Your task to perform on an android device: When is my next meeting? Image 0: 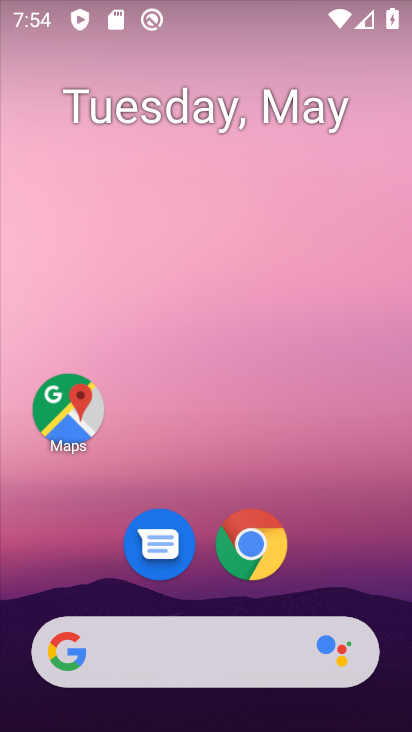
Step 0: drag from (353, 562) to (356, 4)
Your task to perform on an android device: When is my next meeting? Image 1: 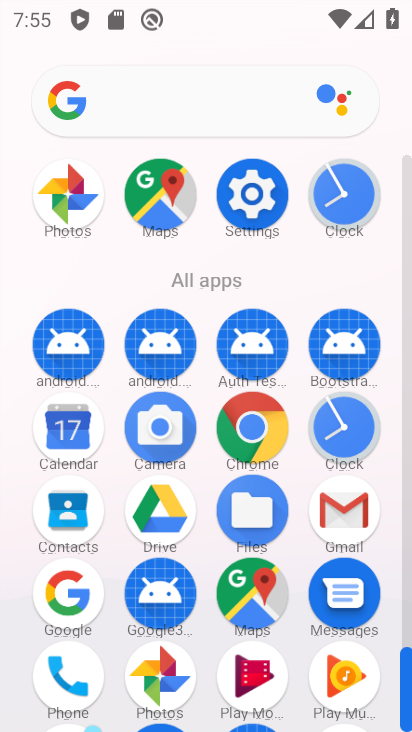
Step 1: click (73, 431)
Your task to perform on an android device: When is my next meeting? Image 2: 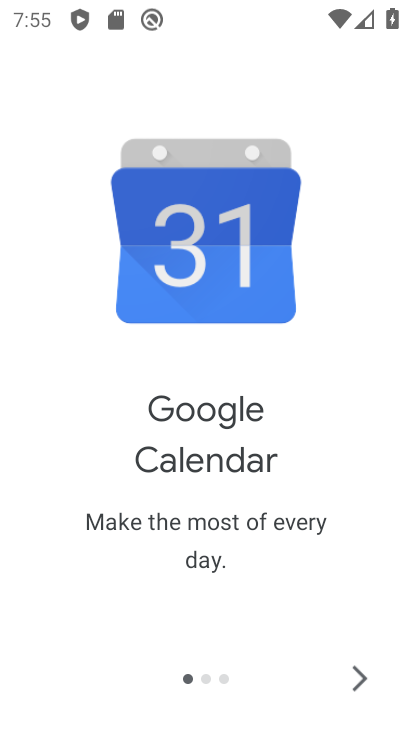
Step 2: click (363, 679)
Your task to perform on an android device: When is my next meeting? Image 3: 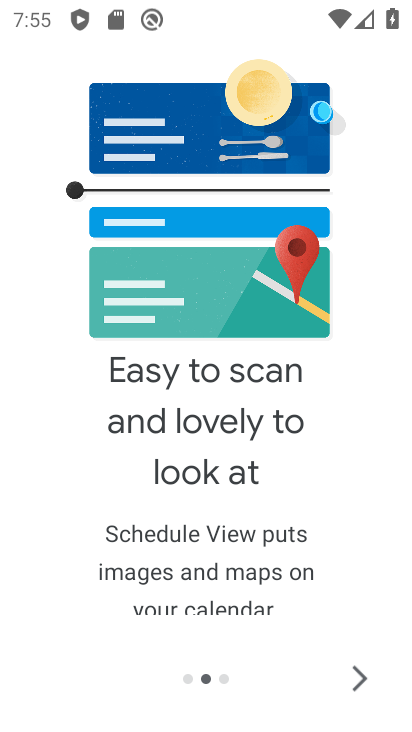
Step 3: click (363, 679)
Your task to perform on an android device: When is my next meeting? Image 4: 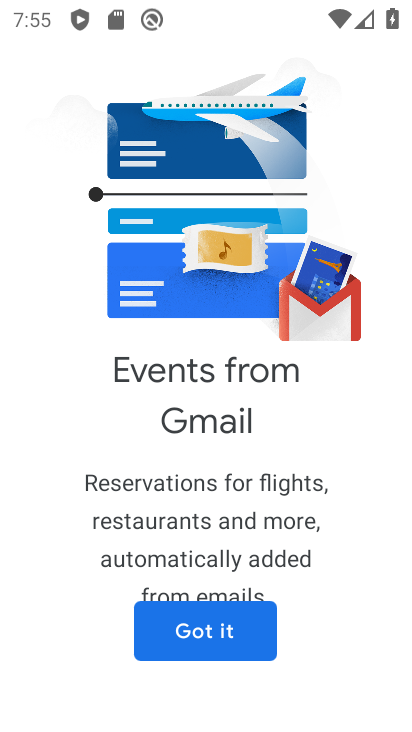
Step 4: click (198, 626)
Your task to perform on an android device: When is my next meeting? Image 5: 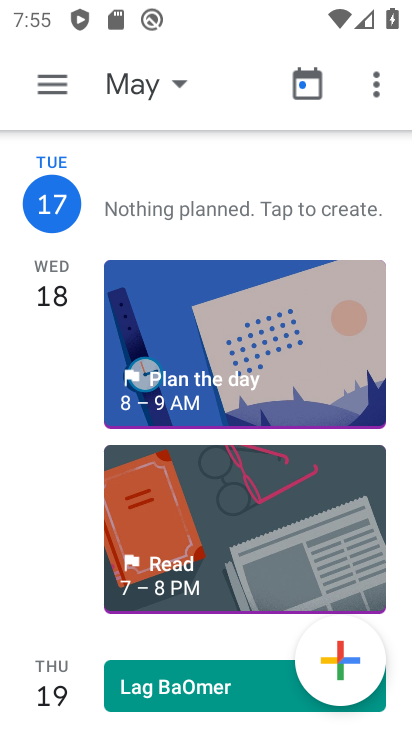
Step 5: click (178, 81)
Your task to perform on an android device: When is my next meeting? Image 6: 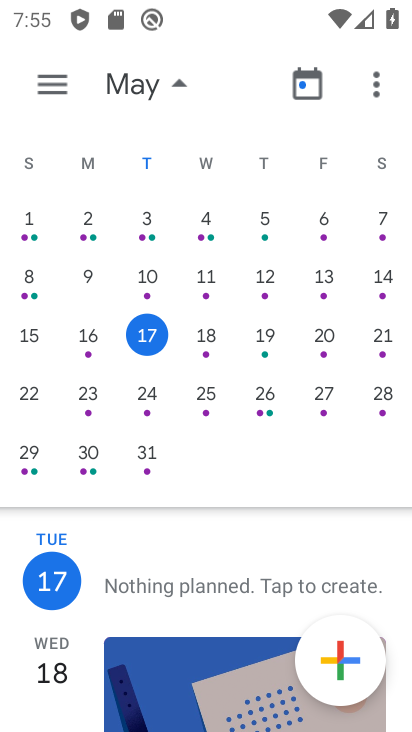
Step 6: click (214, 330)
Your task to perform on an android device: When is my next meeting? Image 7: 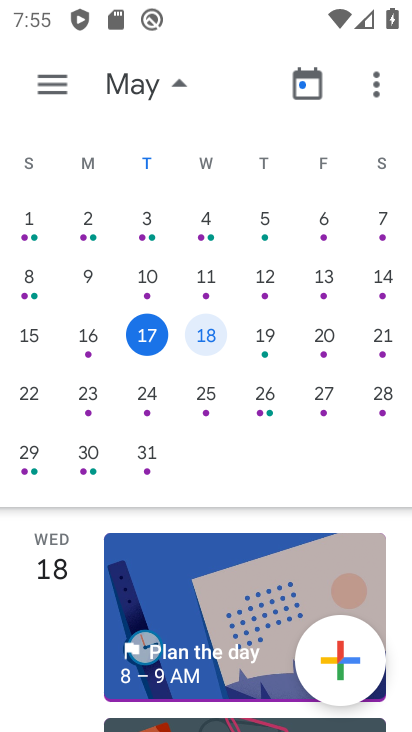
Step 7: click (226, 600)
Your task to perform on an android device: When is my next meeting? Image 8: 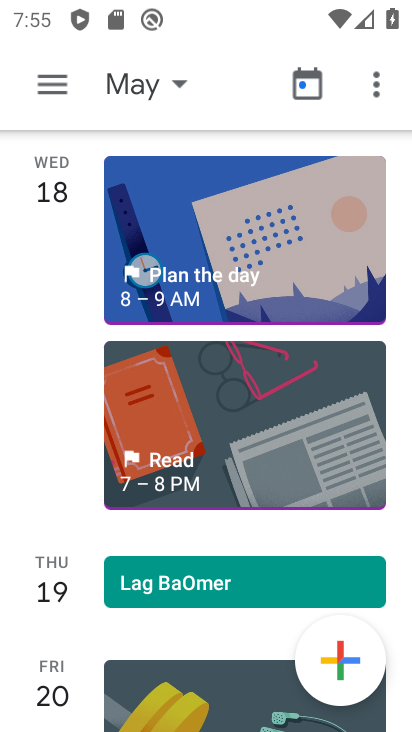
Step 8: task complete